Your task to perform on an android device: Open CNN.com Image 0: 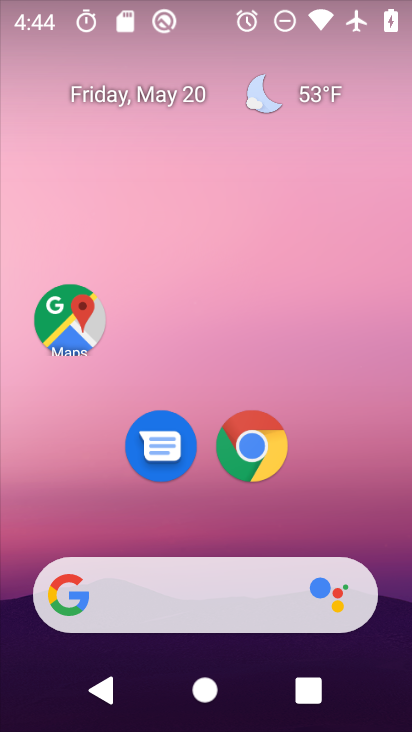
Step 0: click (269, 450)
Your task to perform on an android device: Open CNN.com Image 1: 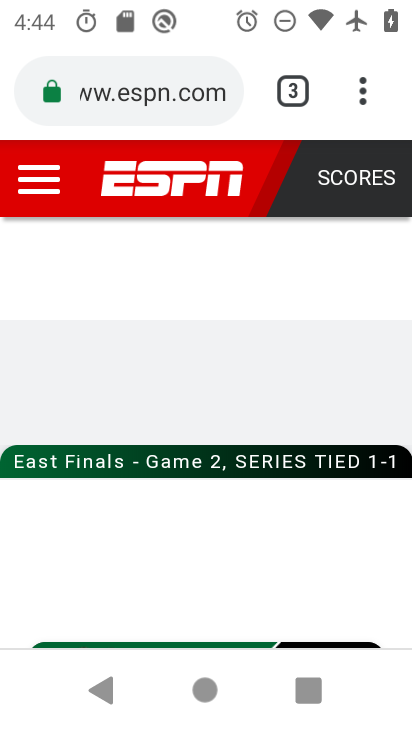
Step 1: click (178, 91)
Your task to perform on an android device: Open CNN.com Image 2: 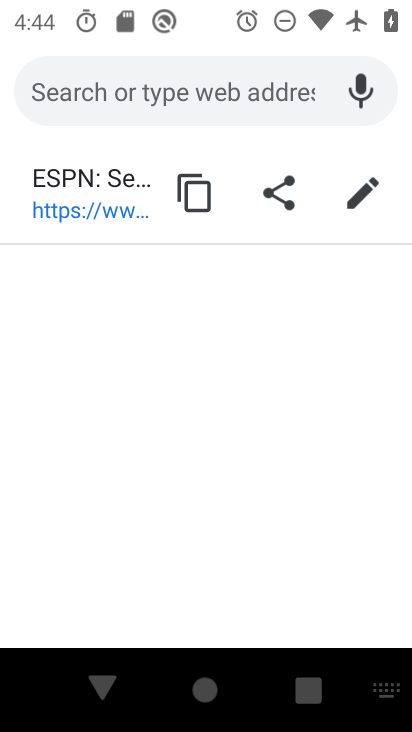
Step 2: type "cnn"
Your task to perform on an android device: Open CNN.com Image 3: 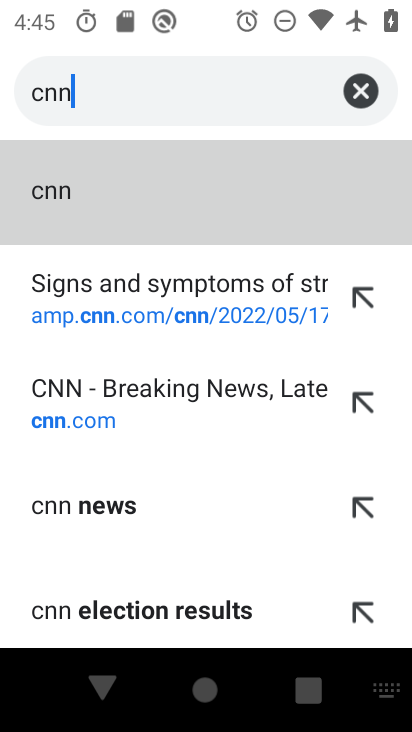
Step 3: click (100, 388)
Your task to perform on an android device: Open CNN.com Image 4: 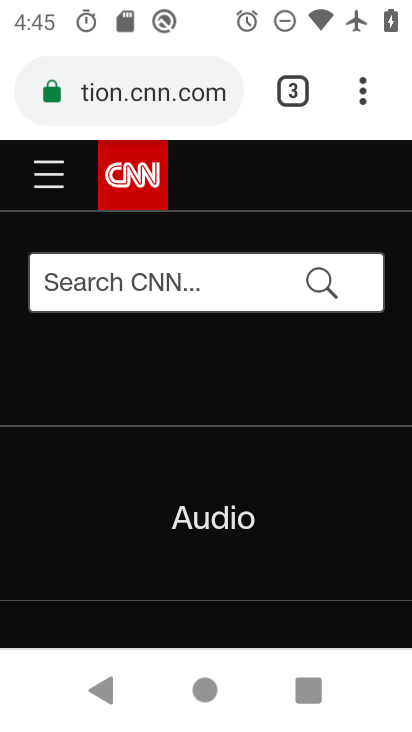
Step 4: task complete